Your task to perform on an android device: uninstall "PUBG MOBILE" Image 0: 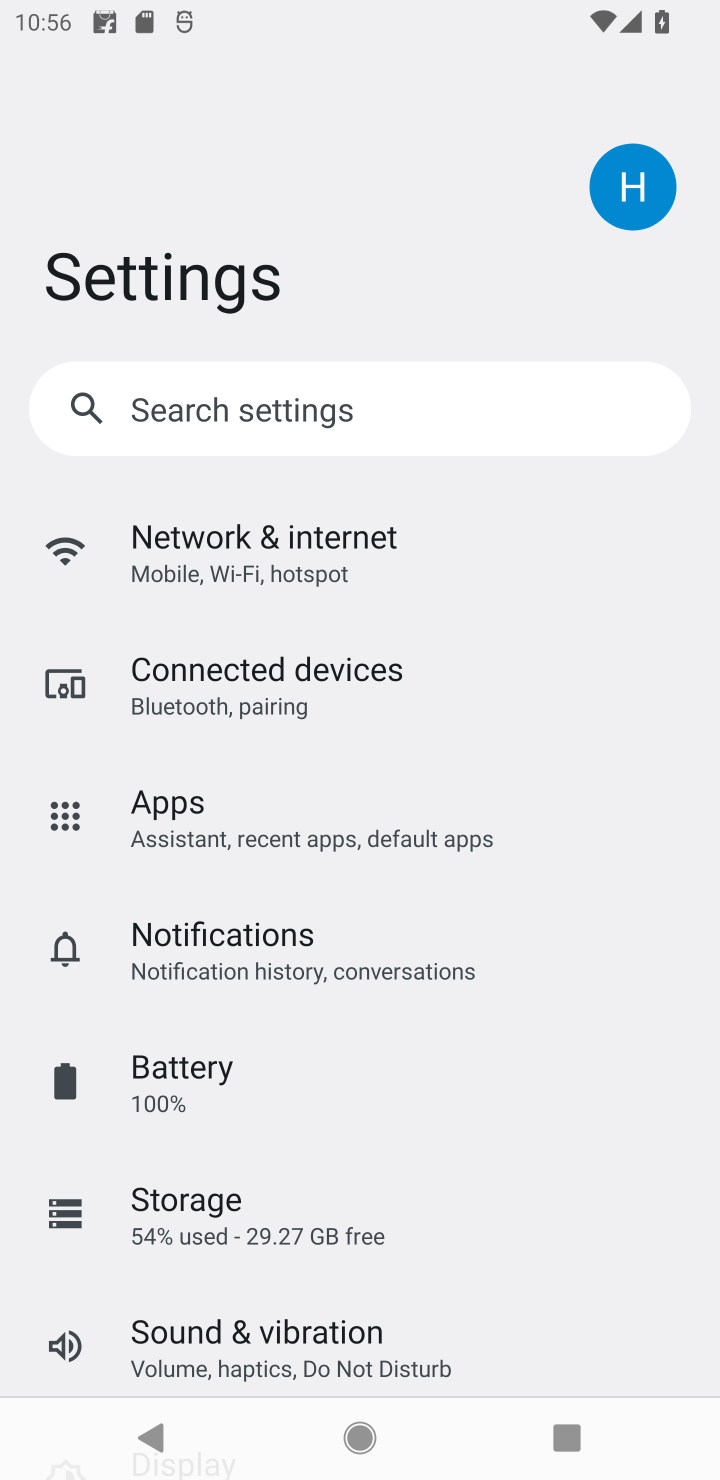
Step 0: press back button
Your task to perform on an android device: uninstall "PUBG MOBILE" Image 1: 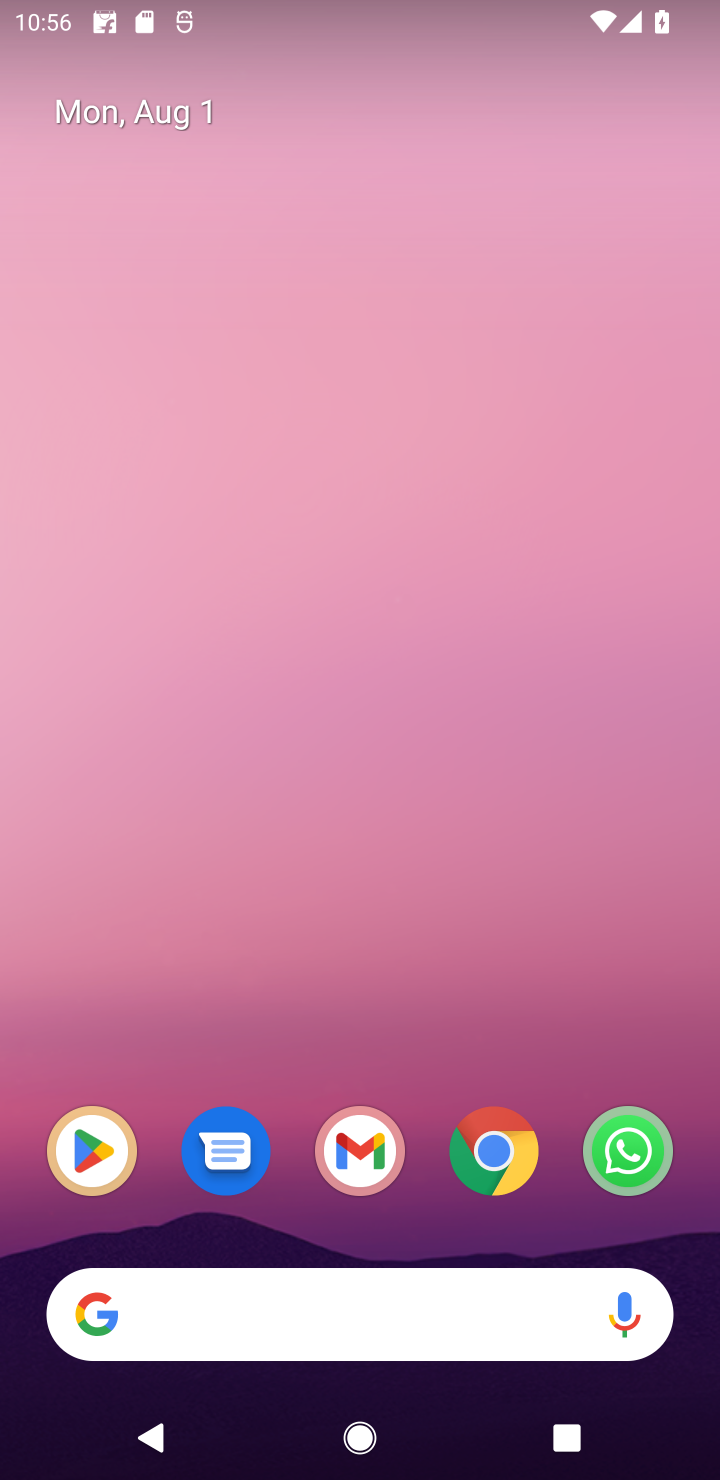
Step 1: press home button
Your task to perform on an android device: uninstall "PUBG MOBILE" Image 2: 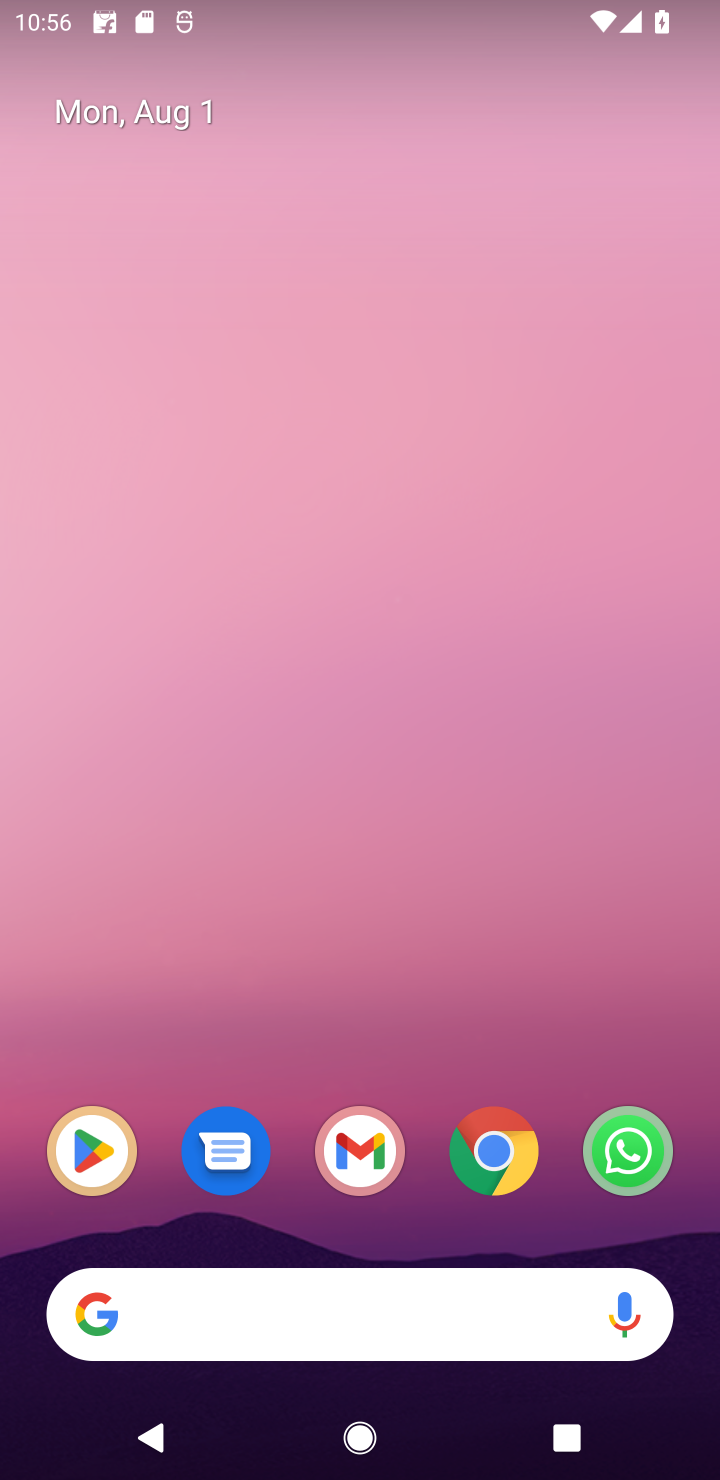
Step 2: click (98, 1160)
Your task to perform on an android device: uninstall "PUBG MOBILE" Image 3: 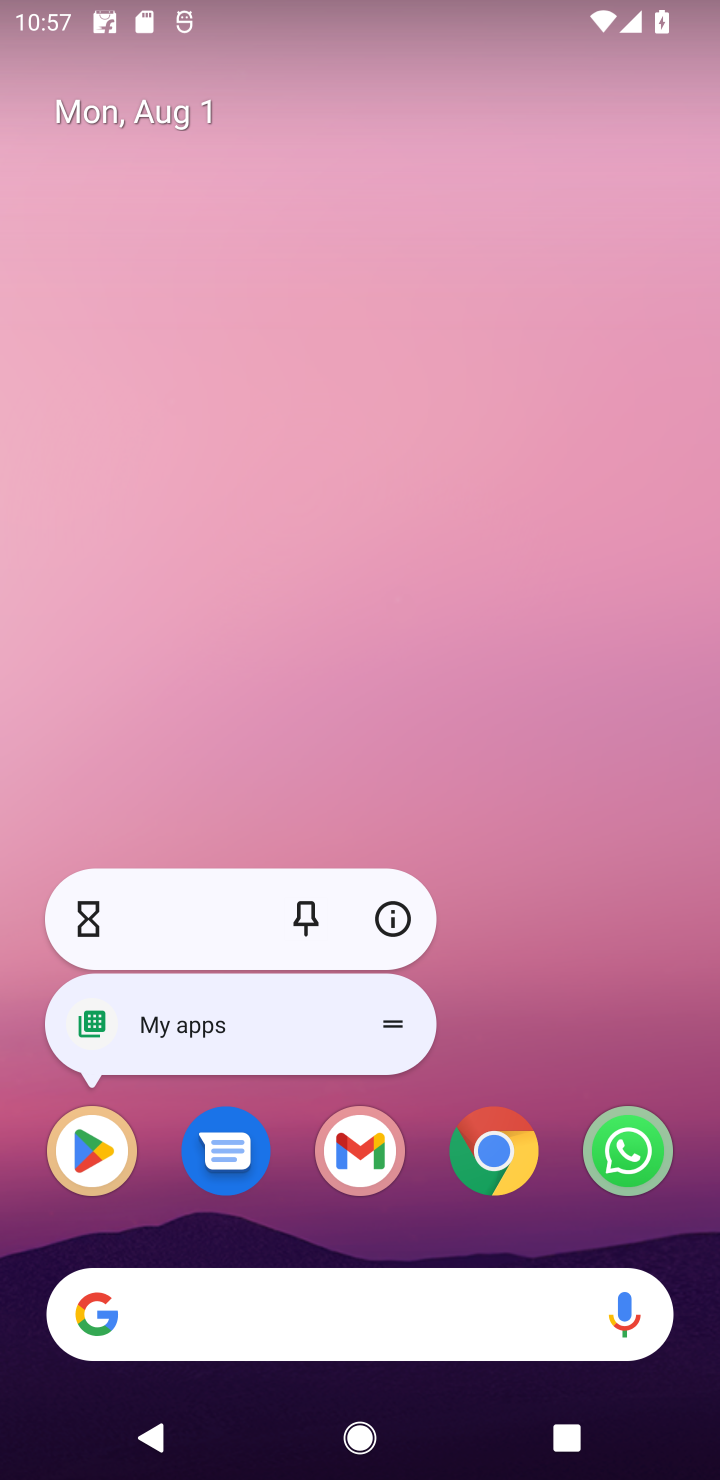
Step 3: click (98, 1160)
Your task to perform on an android device: uninstall "PUBG MOBILE" Image 4: 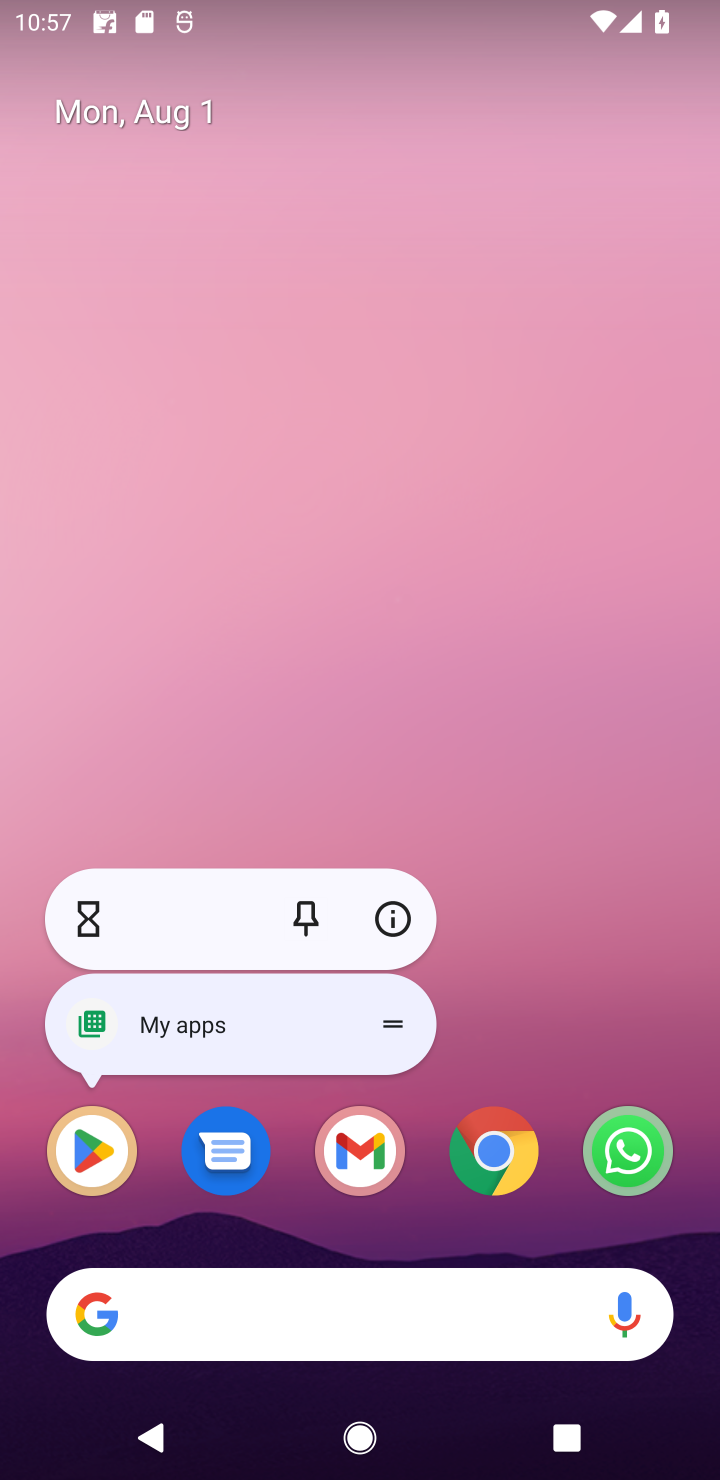
Step 4: click (100, 1132)
Your task to perform on an android device: uninstall "PUBG MOBILE" Image 5: 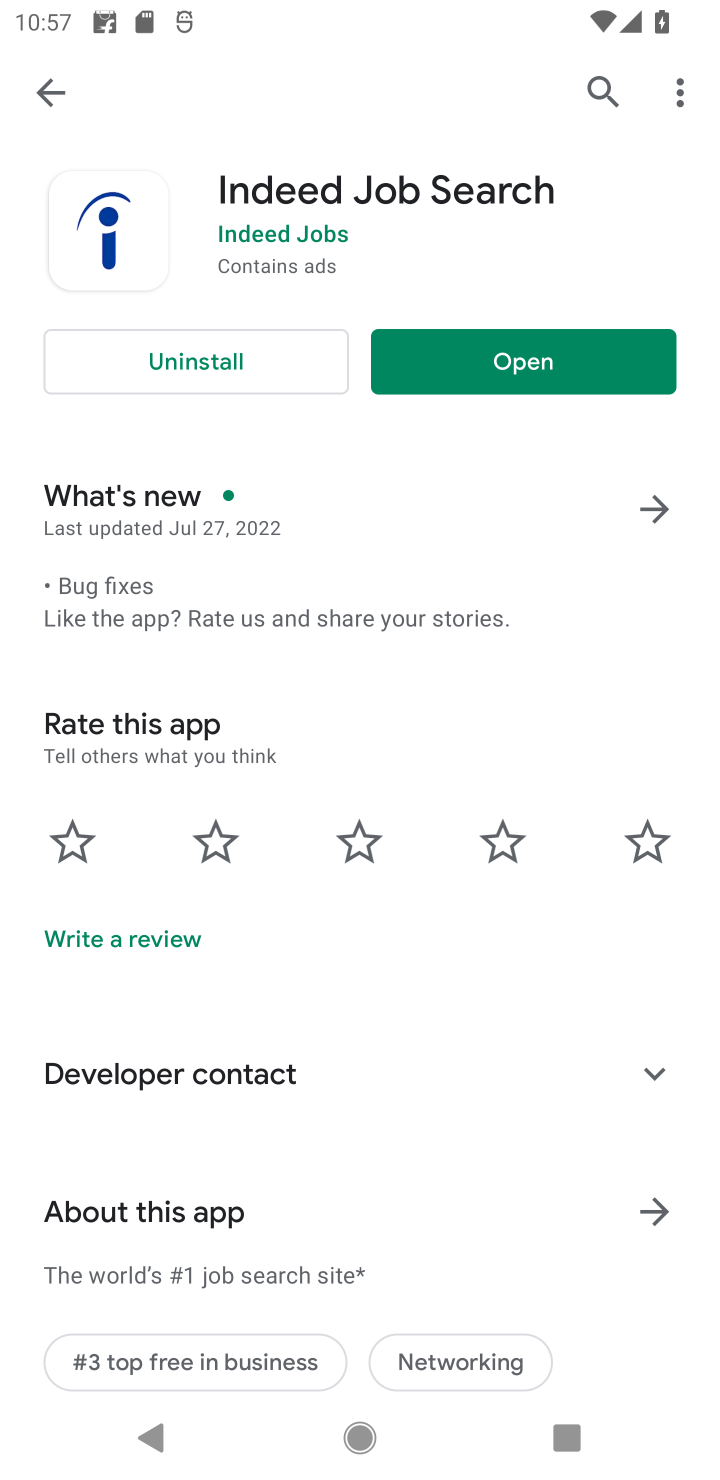
Step 5: click (600, 104)
Your task to perform on an android device: uninstall "PUBG MOBILE" Image 6: 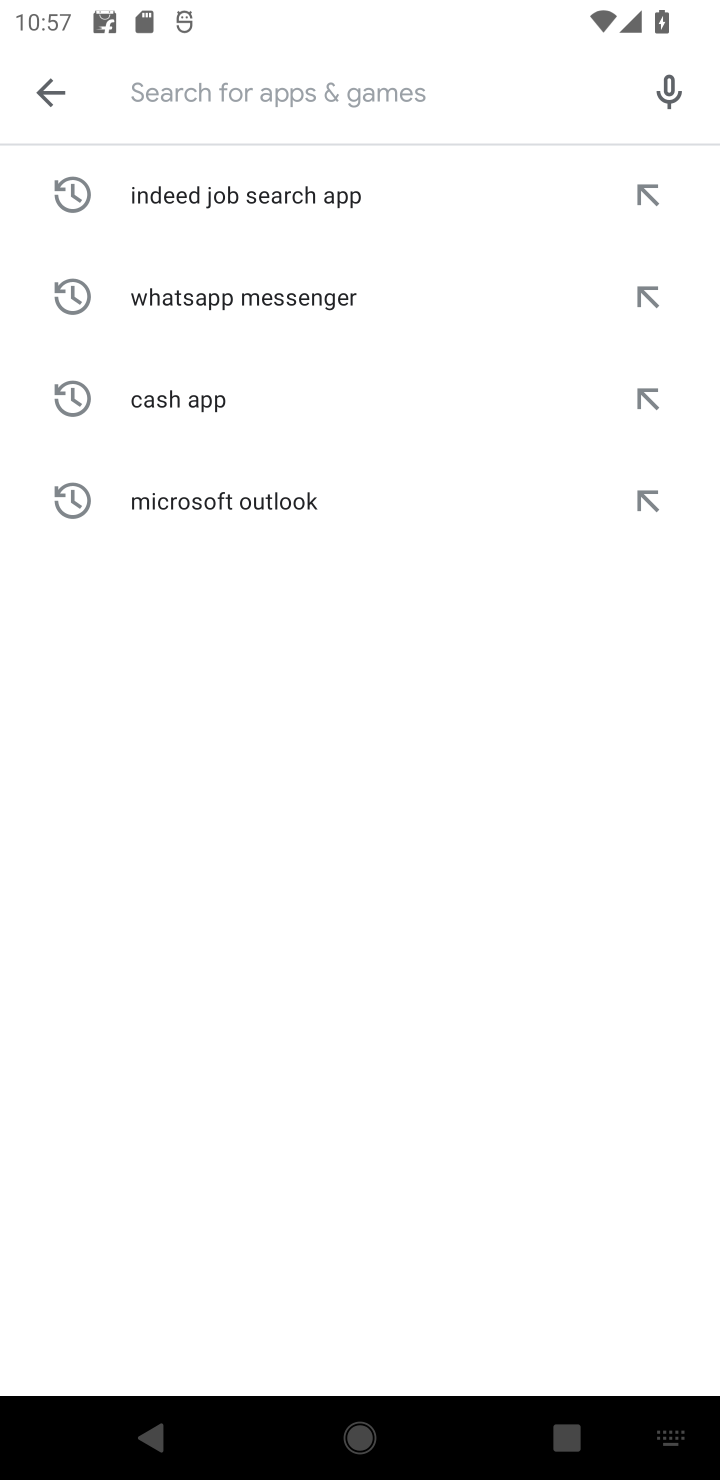
Step 6: type "PUBG MOBILE"
Your task to perform on an android device: uninstall "PUBG MOBILE" Image 7: 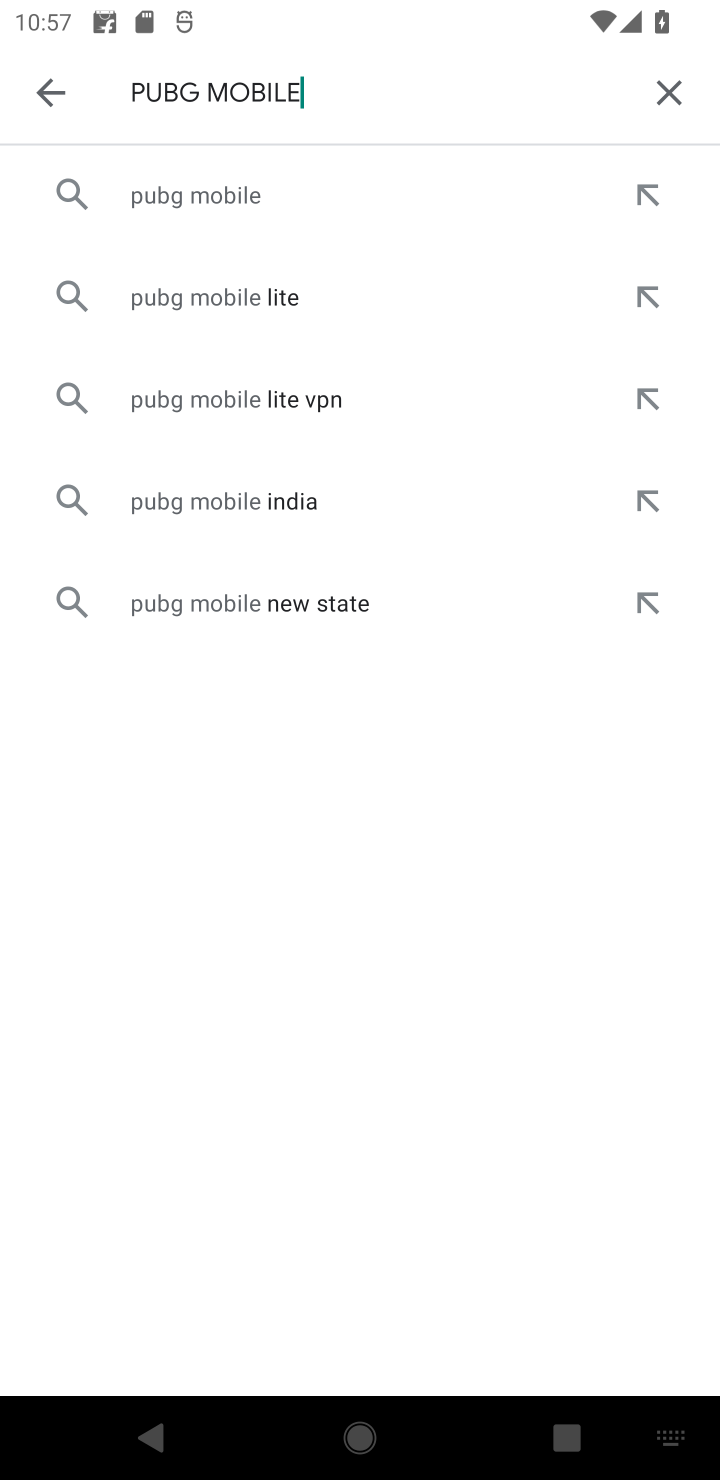
Step 7: click (228, 182)
Your task to perform on an android device: uninstall "PUBG MOBILE" Image 8: 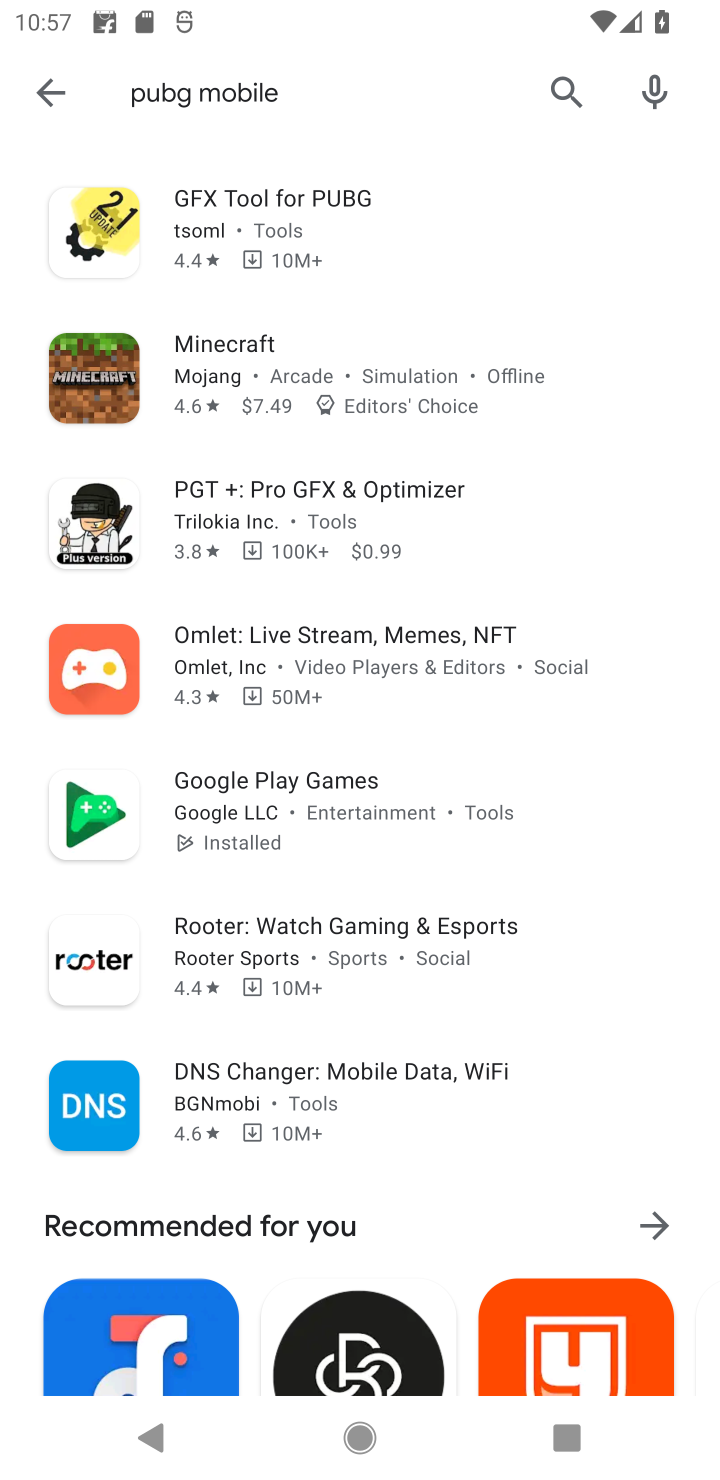
Step 8: task complete